Your task to perform on an android device: change alarm snooze length Image 0: 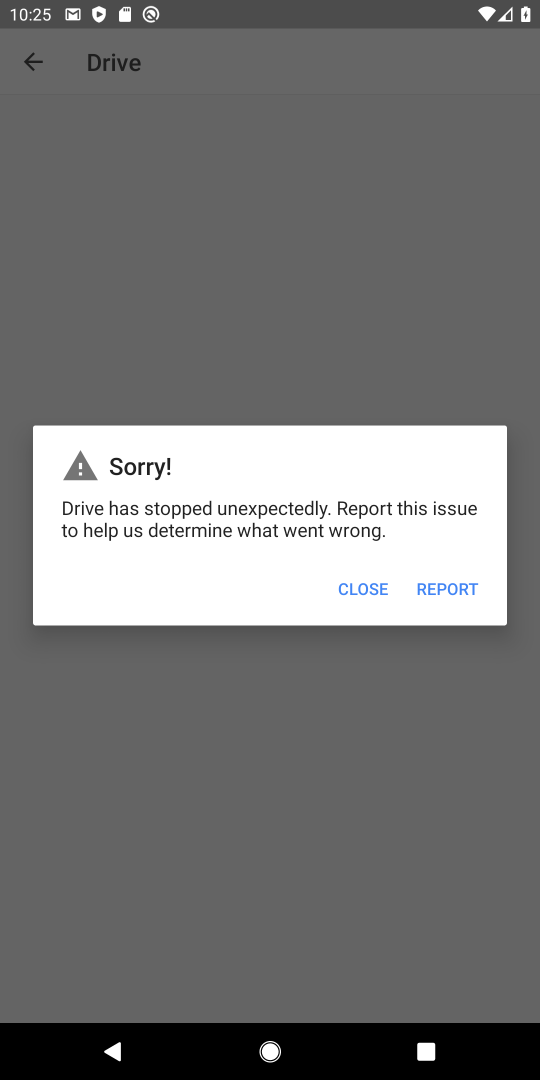
Step 0: press home button
Your task to perform on an android device: change alarm snooze length Image 1: 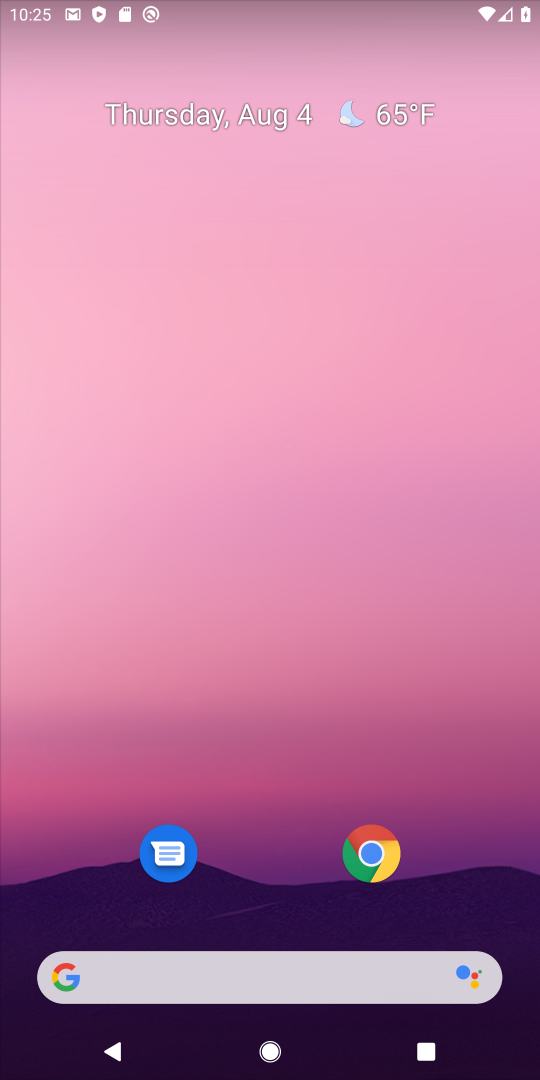
Step 1: drag from (277, 915) to (243, 125)
Your task to perform on an android device: change alarm snooze length Image 2: 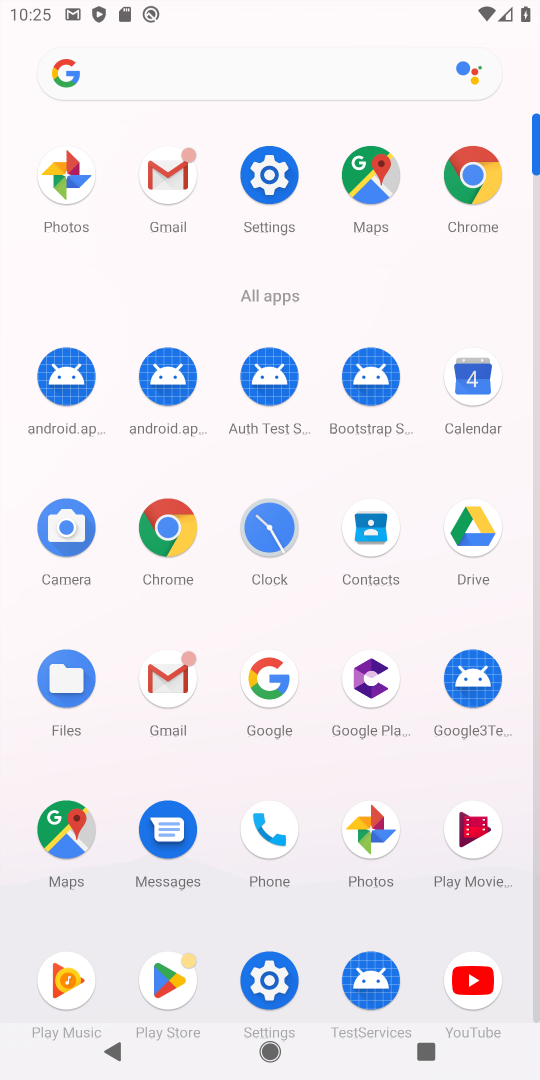
Step 2: click (281, 501)
Your task to perform on an android device: change alarm snooze length Image 3: 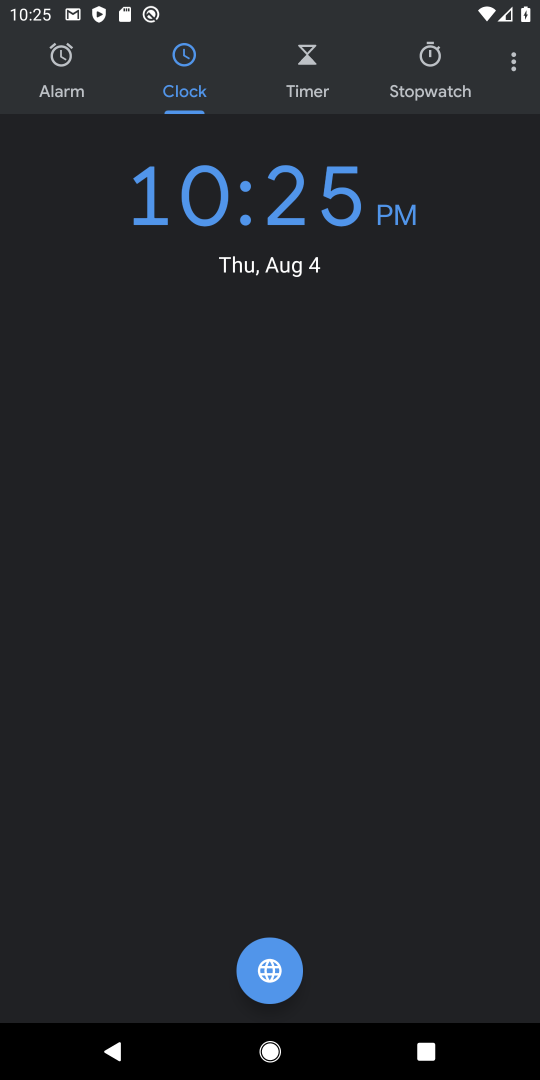
Step 3: click (504, 74)
Your task to perform on an android device: change alarm snooze length Image 4: 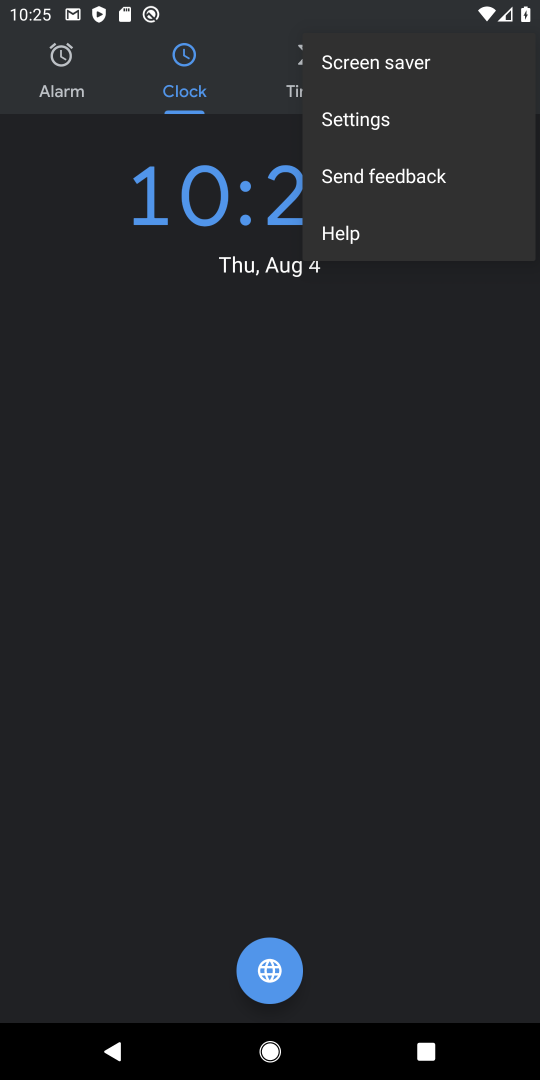
Step 4: click (375, 113)
Your task to perform on an android device: change alarm snooze length Image 5: 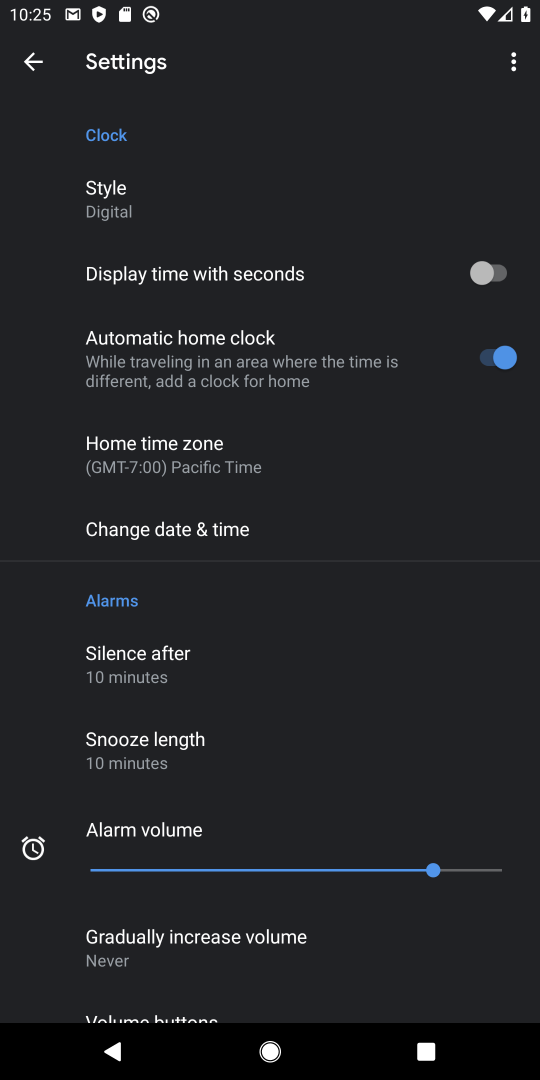
Step 5: click (186, 719)
Your task to perform on an android device: change alarm snooze length Image 6: 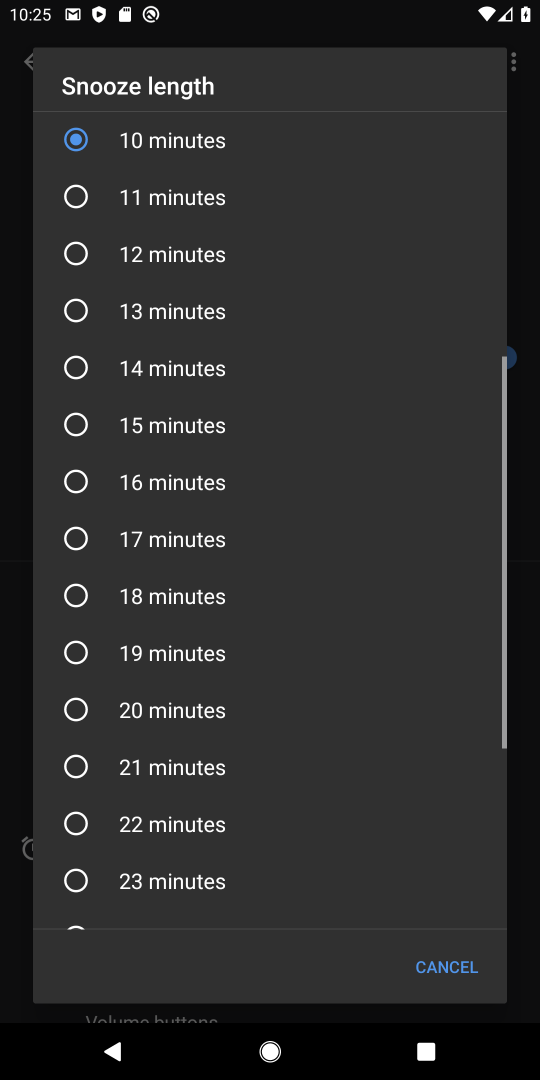
Step 6: click (166, 196)
Your task to perform on an android device: change alarm snooze length Image 7: 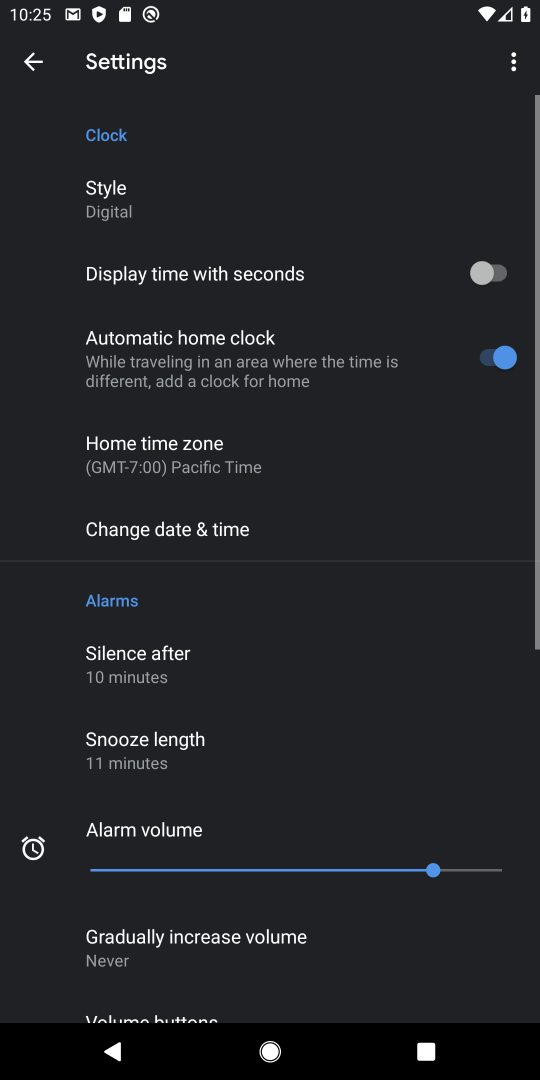
Step 7: task complete